Your task to perform on an android device: Open Amazon Image 0: 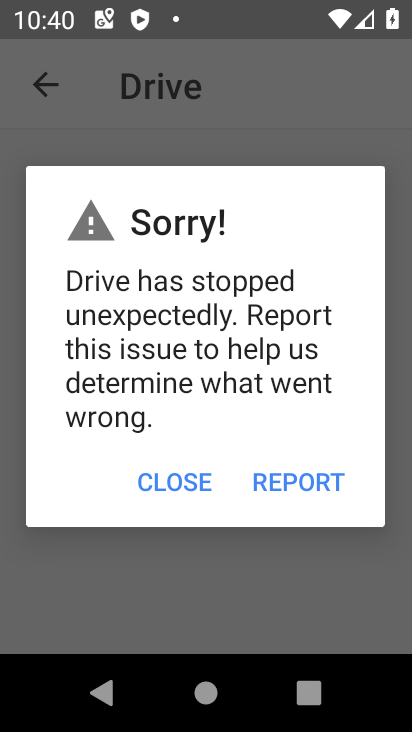
Step 0: press home button
Your task to perform on an android device: Open Amazon Image 1: 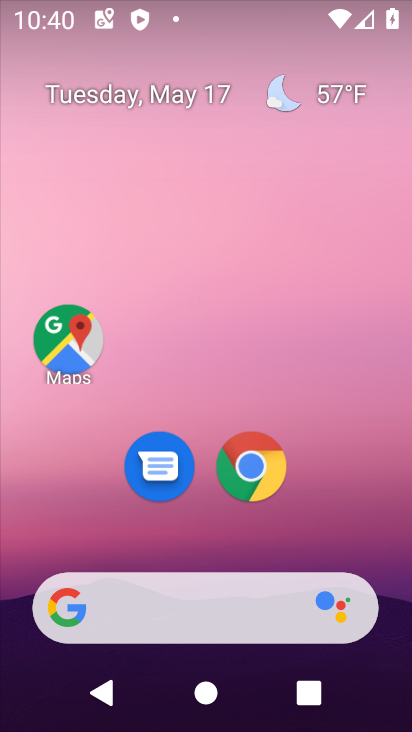
Step 1: drag from (221, 644) to (324, 212)
Your task to perform on an android device: Open Amazon Image 2: 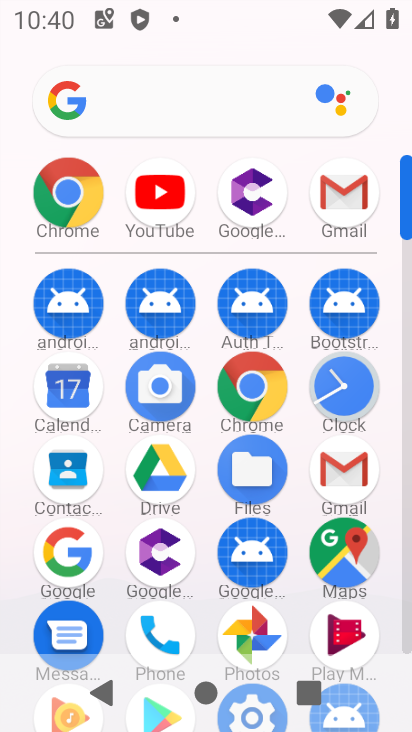
Step 2: click (76, 193)
Your task to perform on an android device: Open Amazon Image 3: 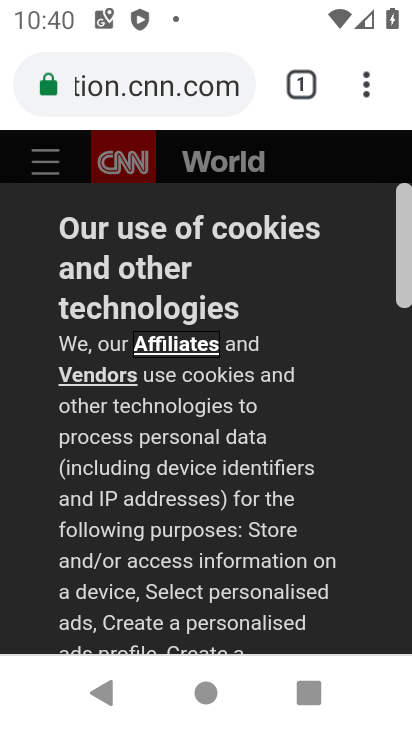
Step 3: click (288, 84)
Your task to perform on an android device: Open Amazon Image 4: 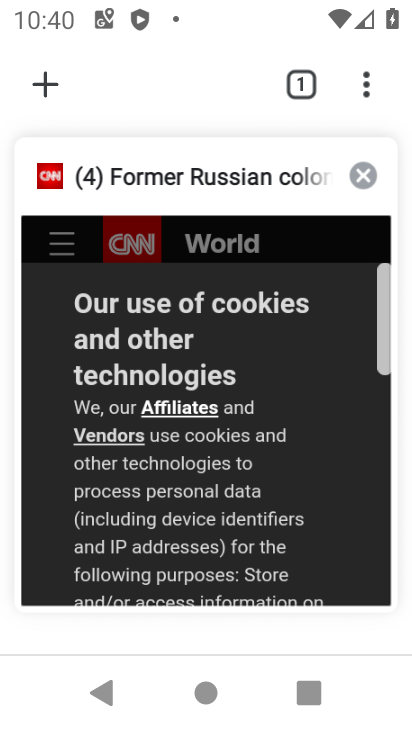
Step 4: click (64, 94)
Your task to perform on an android device: Open Amazon Image 5: 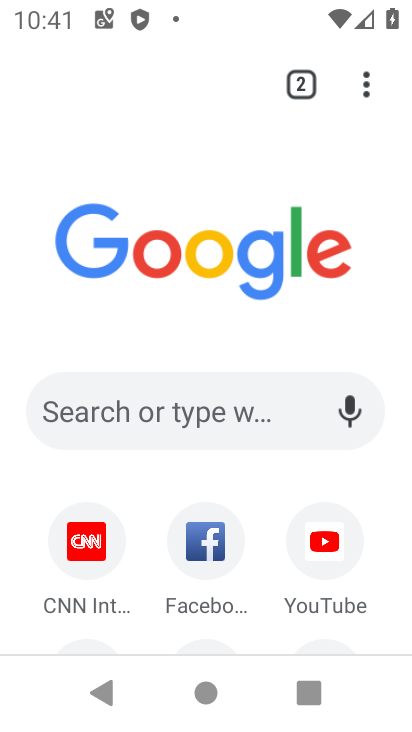
Step 5: drag from (247, 512) to (265, 373)
Your task to perform on an android device: Open Amazon Image 6: 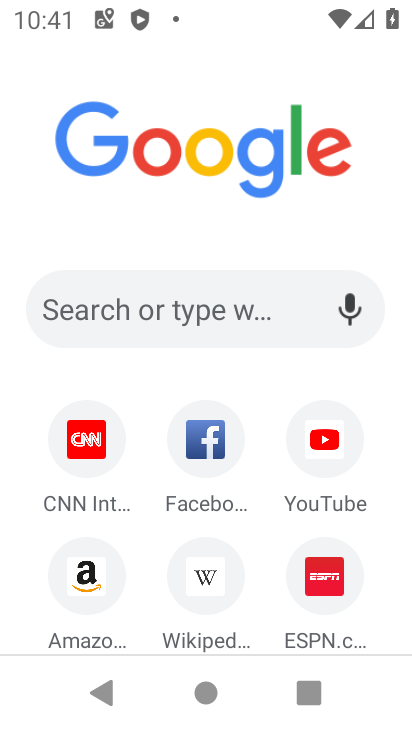
Step 6: click (89, 591)
Your task to perform on an android device: Open Amazon Image 7: 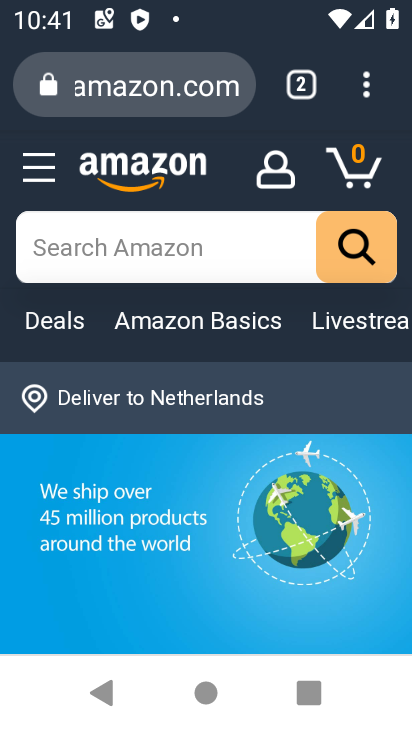
Step 7: task complete